Your task to perform on an android device: What's the weather today? Image 0: 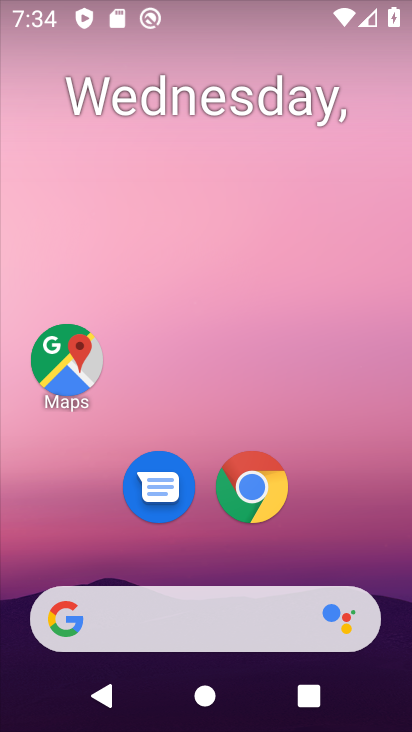
Step 0: click (101, 615)
Your task to perform on an android device: What's the weather today? Image 1: 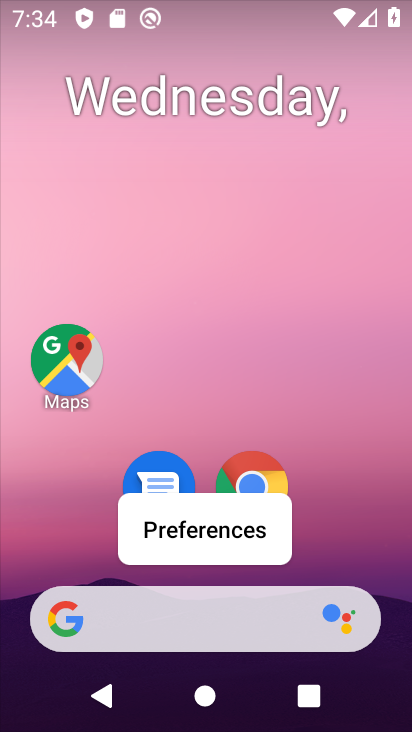
Step 1: click (102, 612)
Your task to perform on an android device: What's the weather today? Image 2: 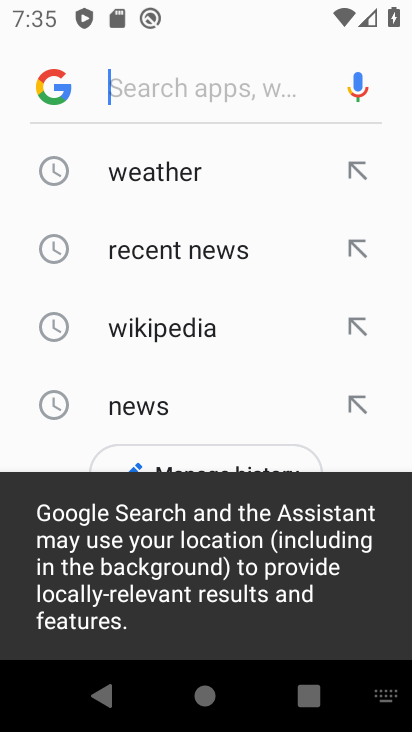
Step 2: click (150, 173)
Your task to perform on an android device: What's the weather today? Image 3: 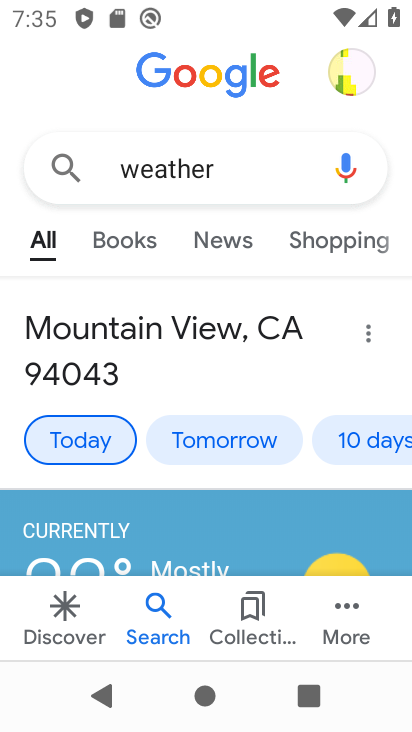
Step 3: task complete